Your task to perform on an android device: open app "Google Docs" (install if not already installed) Image 0: 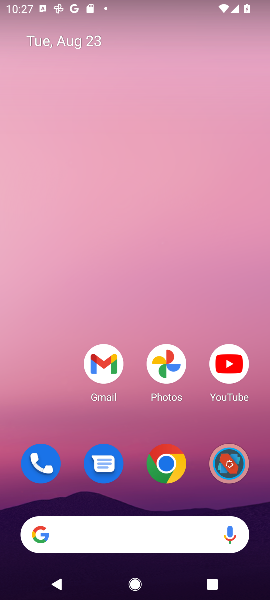
Step 0: press home button
Your task to perform on an android device: open app "Google Docs" (install if not already installed) Image 1: 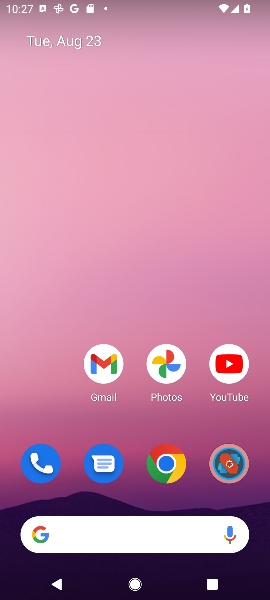
Step 1: drag from (145, 425) to (126, 3)
Your task to perform on an android device: open app "Google Docs" (install if not already installed) Image 2: 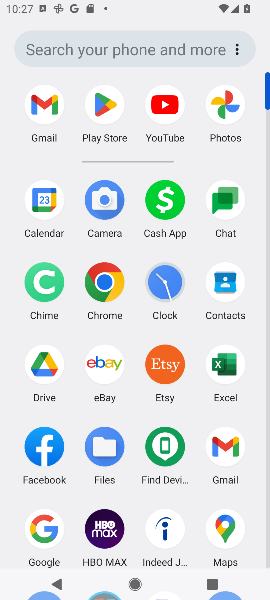
Step 2: click (105, 101)
Your task to perform on an android device: open app "Google Docs" (install if not already installed) Image 3: 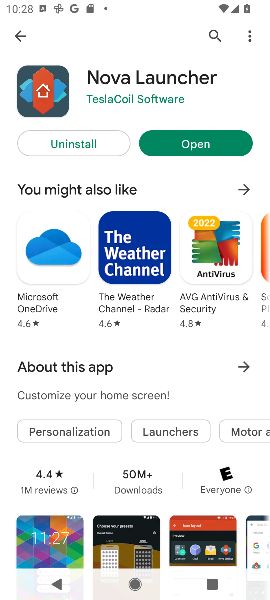
Step 3: click (218, 36)
Your task to perform on an android device: open app "Google Docs" (install if not already installed) Image 4: 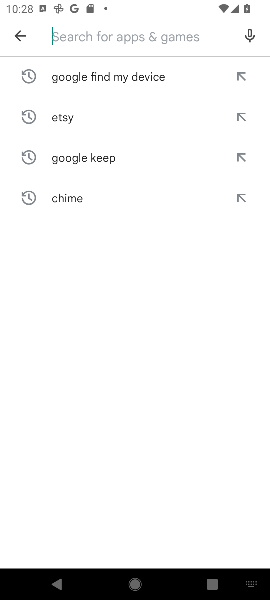
Step 4: type "Google Docs"
Your task to perform on an android device: open app "Google Docs" (install if not already installed) Image 5: 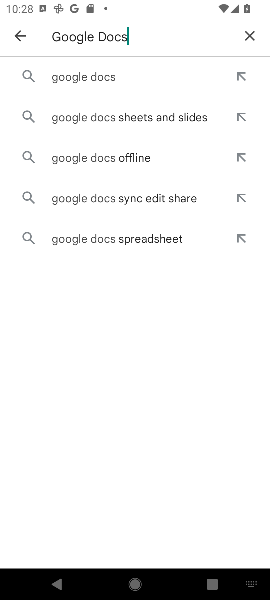
Step 5: click (135, 78)
Your task to perform on an android device: open app "Google Docs" (install if not already installed) Image 6: 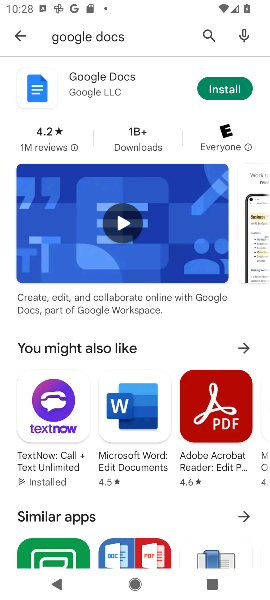
Step 6: click (218, 86)
Your task to perform on an android device: open app "Google Docs" (install if not already installed) Image 7: 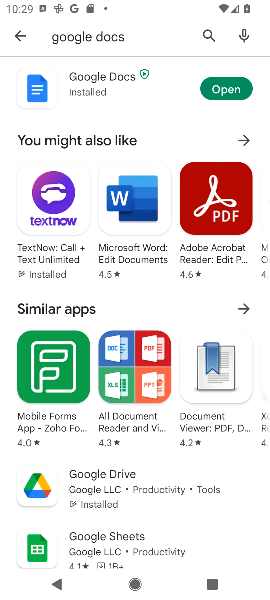
Step 7: click (211, 87)
Your task to perform on an android device: open app "Google Docs" (install if not already installed) Image 8: 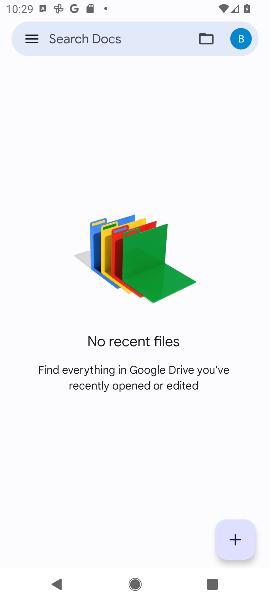
Step 8: task complete